Your task to perform on an android device: Open sound settings Image 0: 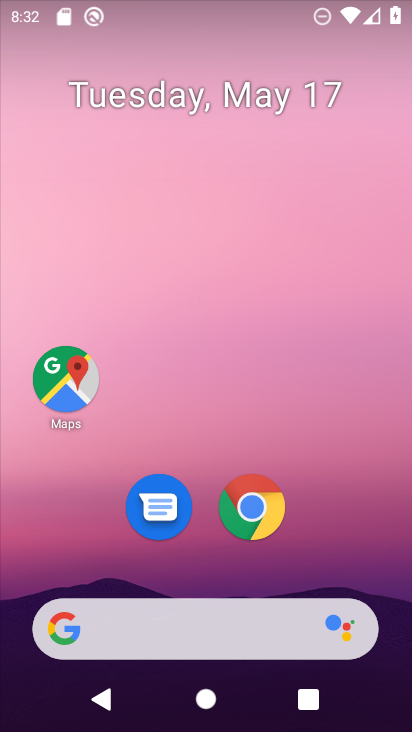
Step 0: drag from (382, 602) to (389, 9)
Your task to perform on an android device: Open sound settings Image 1: 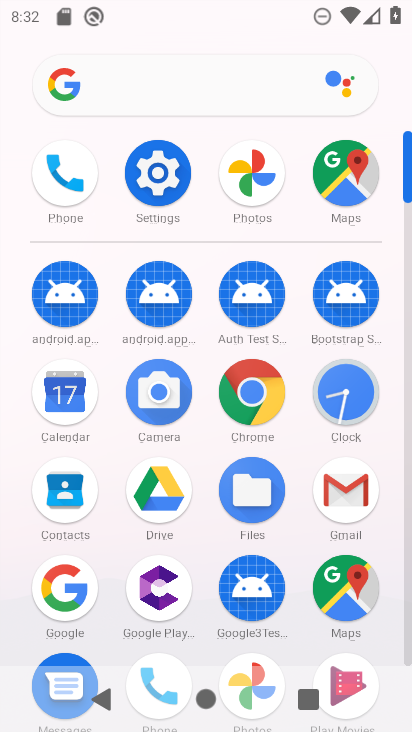
Step 1: click (156, 186)
Your task to perform on an android device: Open sound settings Image 2: 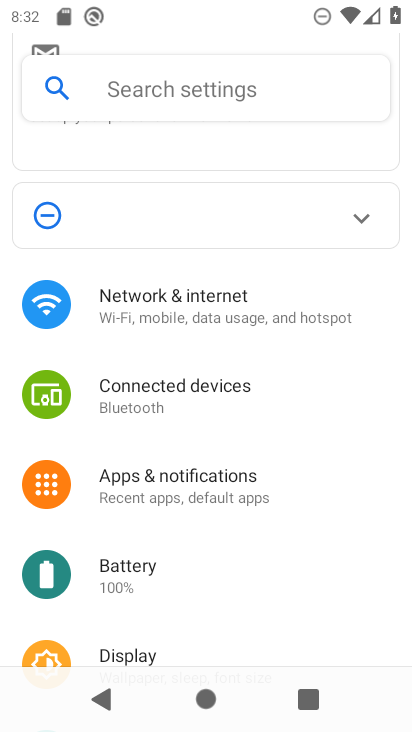
Step 2: drag from (308, 583) to (263, 212)
Your task to perform on an android device: Open sound settings Image 3: 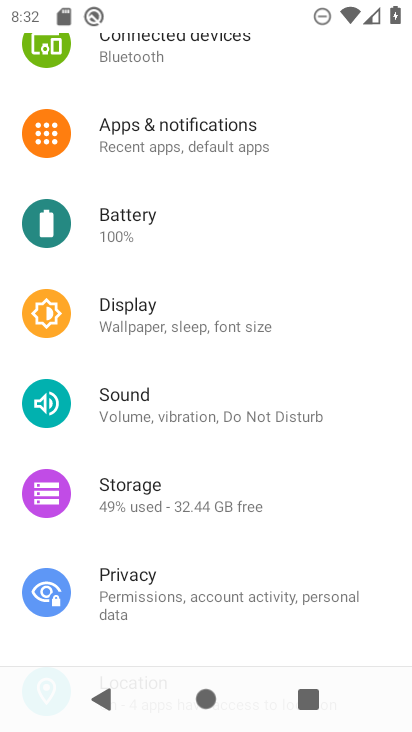
Step 3: click (115, 405)
Your task to perform on an android device: Open sound settings Image 4: 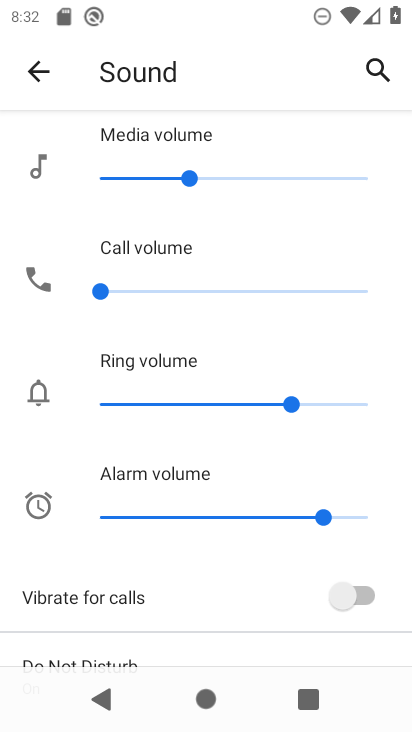
Step 4: task complete